Your task to perform on an android device: Go to CNN.com Image 0: 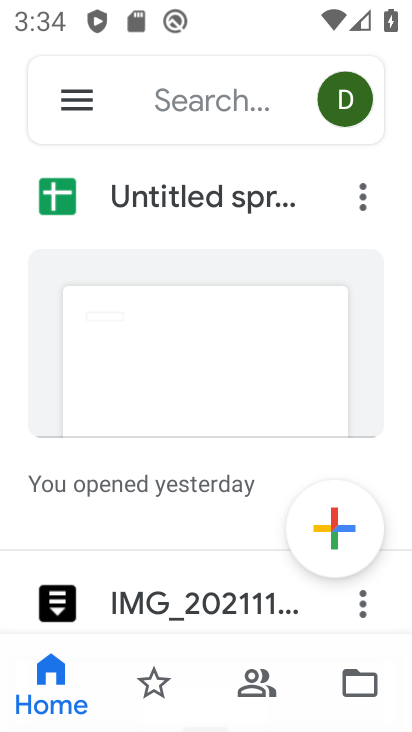
Step 0: press home button
Your task to perform on an android device: Go to CNN.com Image 1: 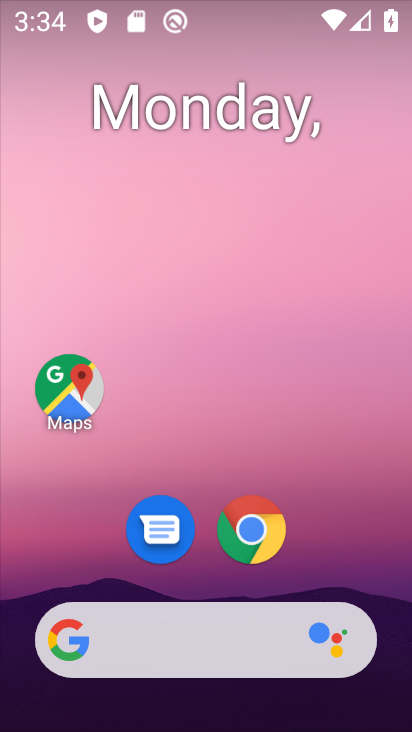
Step 1: click (243, 542)
Your task to perform on an android device: Go to CNN.com Image 2: 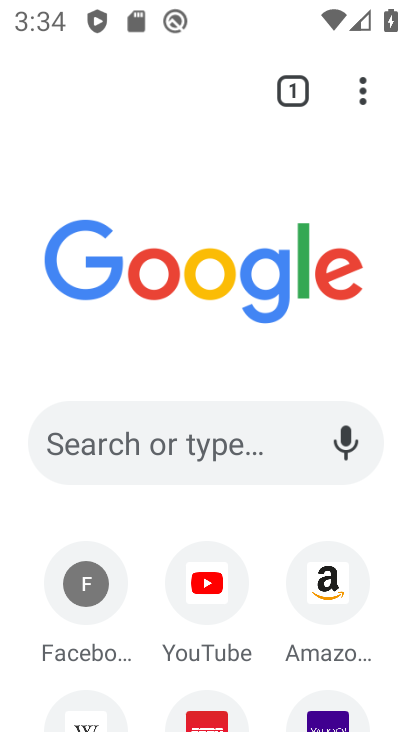
Step 2: click (212, 459)
Your task to perform on an android device: Go to CNN.com Image 3: 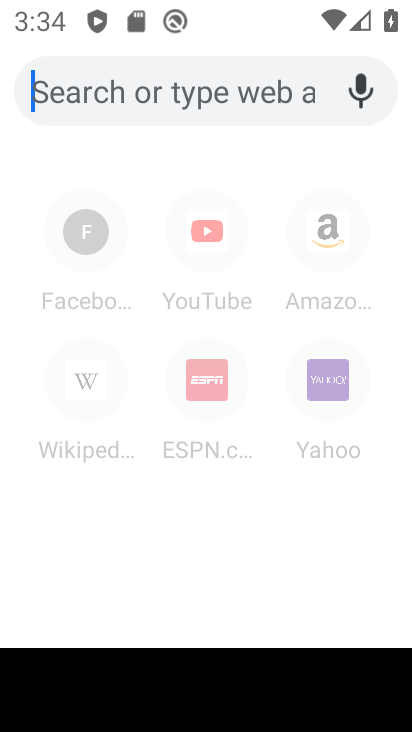
Step 3: type "CNN.com"
Your task to perform on an android device: Go to CNN.com Image 4: 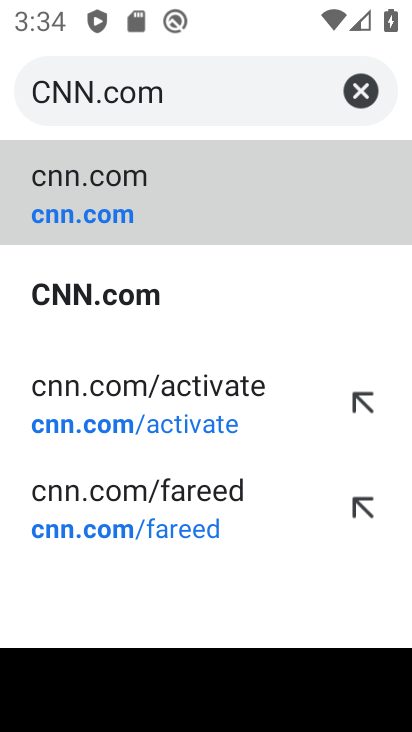
Step 4: click (128, 284)
Your task to perform on an android device: Go to CNN.com Image 5: 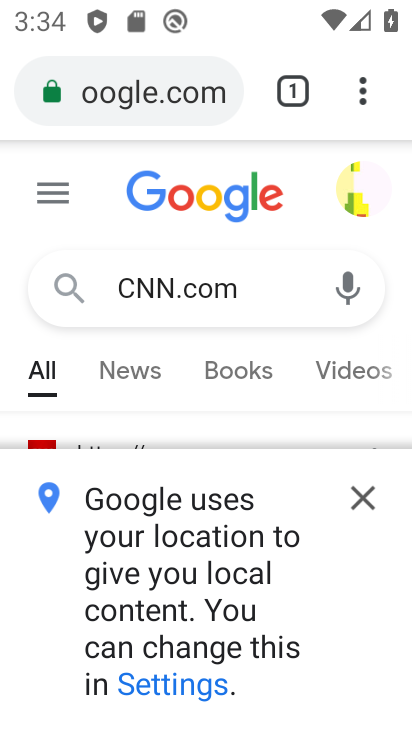
Step 5: click (373, 492)
Your task to perform on an android device: Go to CNN.com Image 6: 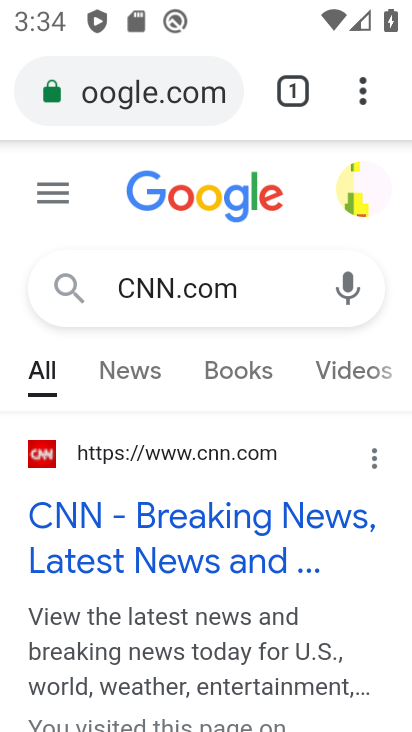
Step 6: task complete